Your task to perform on an android device: toggle notification dots Image 0: 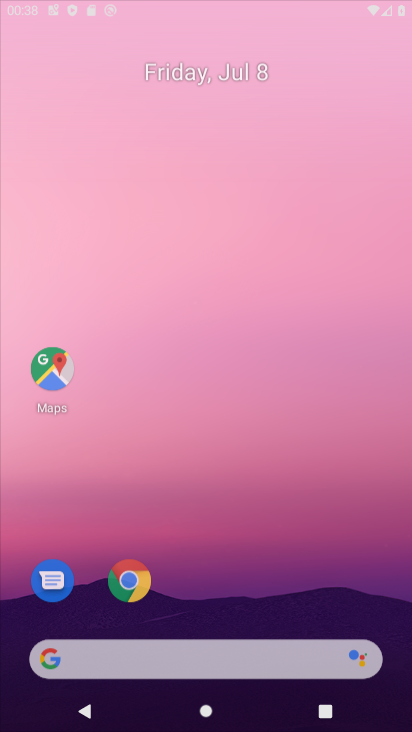
Step 0: click (284, 87)
Your task to perform on an android device: toggle notification dots Image 1: 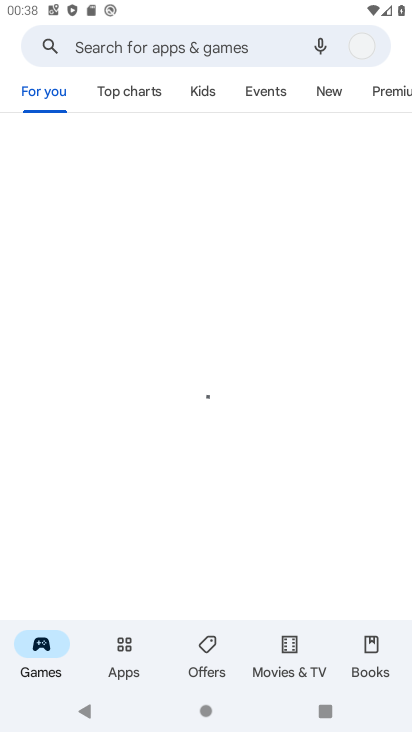
Step 1: press home button
Your task to perform on an android device: toggle notification dots Image 2: 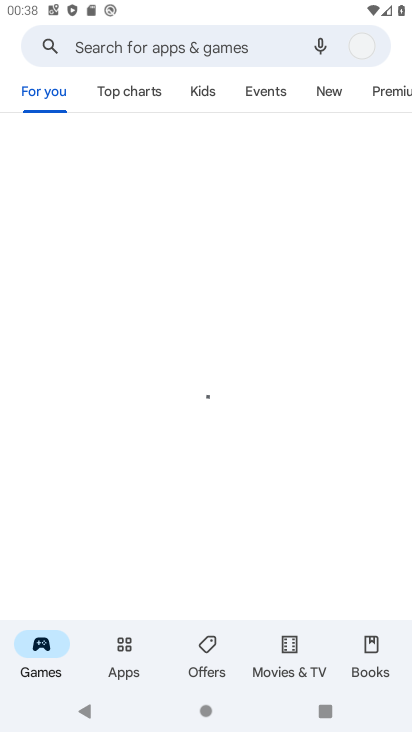
Step 2: press home button
Your task to perform on an android device: toggle notification dots Image 3: 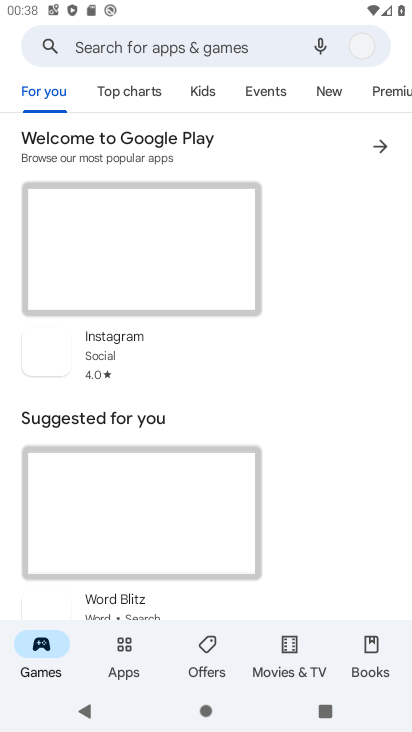
Step 3: click (206, 85)
Your task to perform on an android device: toggle notification dots Image 4: 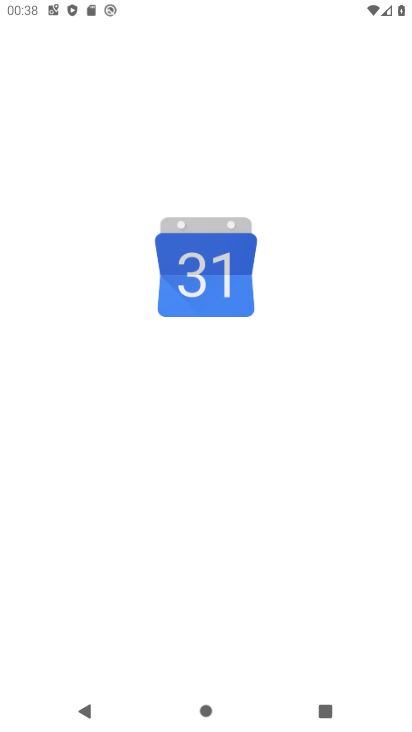
Step 4: drag from (200, 594) to (301, 140)
Your task to perform on an android device: toggle notification dots Image 5: 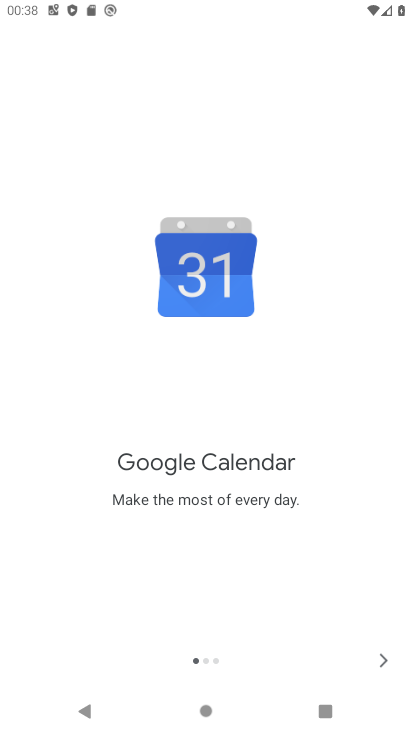
Step 5: press home button
Your task to perform on an android device: toggle notification dots Image 6: 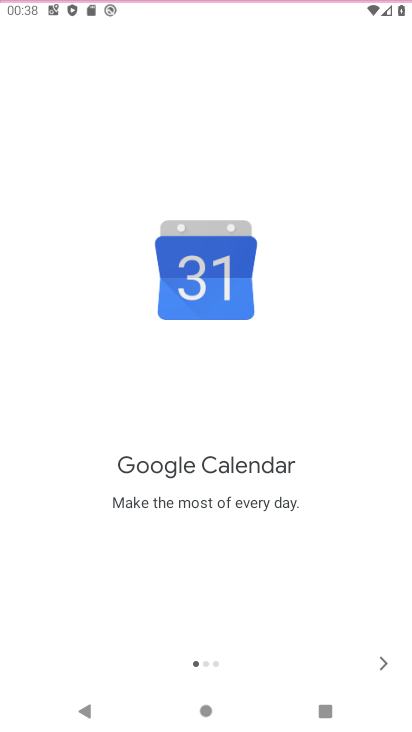
Step 6: press home button
Your task to perform on an android device: toggle notification dots Image 7: 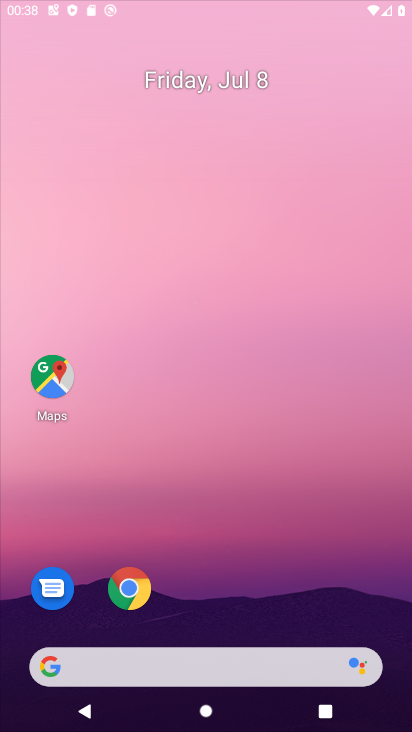
Step 7: drag from (217, 619) to (267, 89)
Your task to perform on an android device: toggle notification dots Image 8: 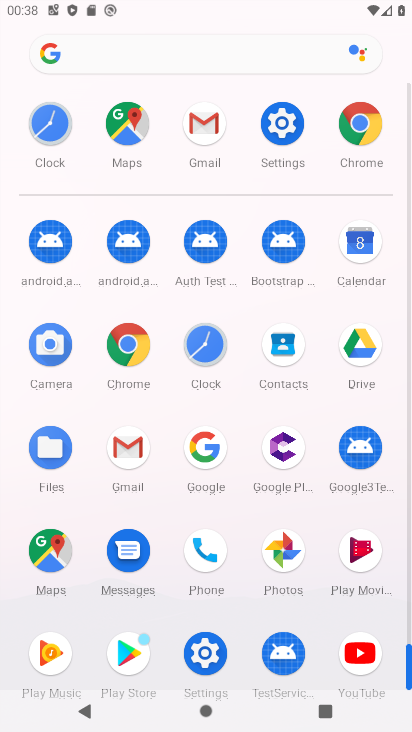
Step 8: click (275, 114)
Your task to perform on an android device: toggle notification dots Image 9: 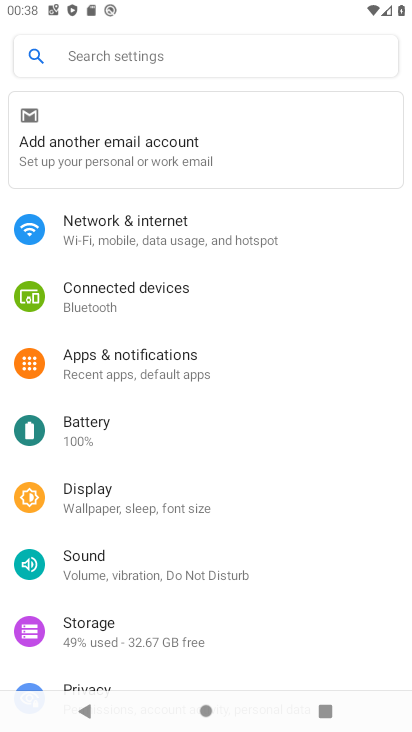
Step 9: click (156, 371)
Your task to perform on an android device: toggle notification dots Image 10: 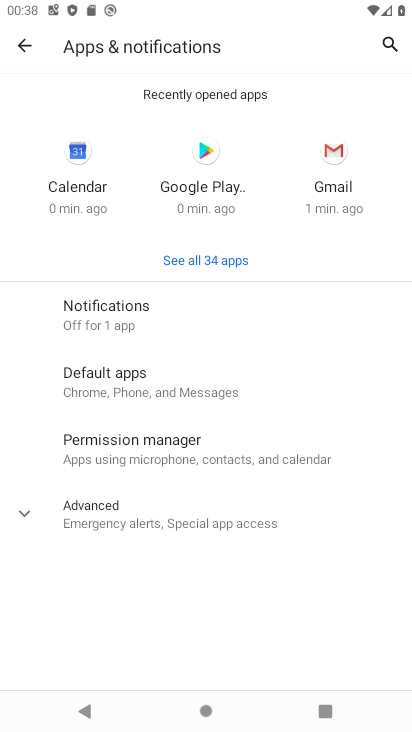
Step 10: click (93, 314)
Your task to perform on an android device: toggle notification dots Image 11: 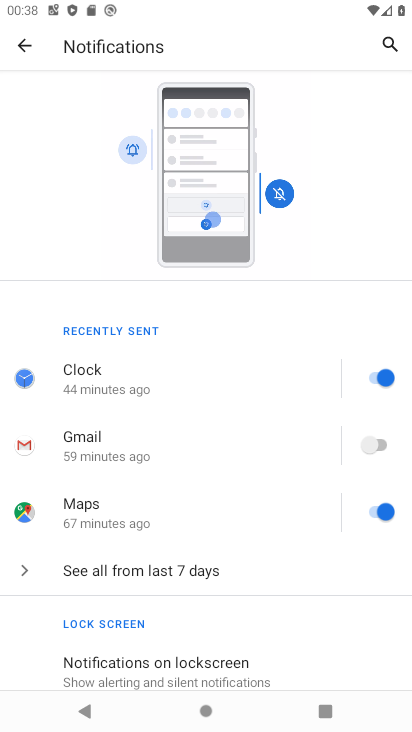
Step 11: drag from (279, 550) to (311, 230)
Your task to perform on an android device: toggle notification dots Image 12: 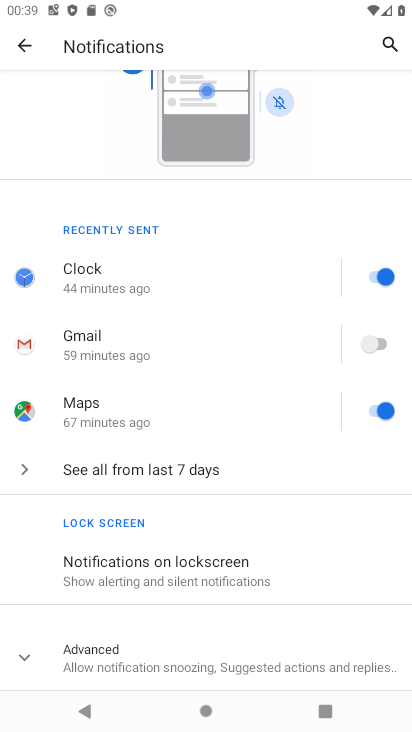
Step 12: drag from (176, 567) to (191, 298)
Your task to perform on an android device: toggle notification dots Image 13: 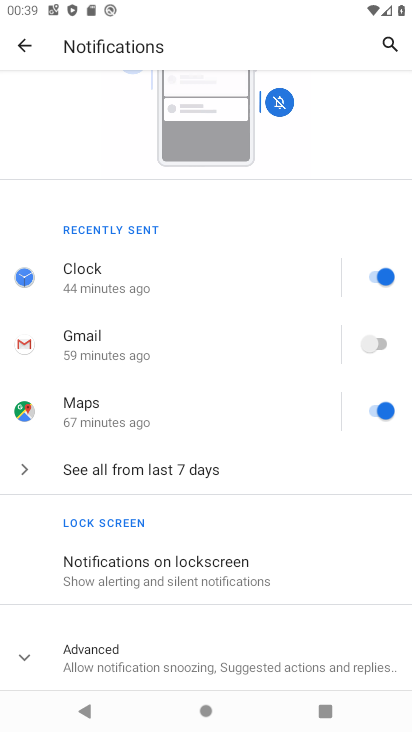
Step 13: click (125, 643)
Your task to perform on an android device: toggle notification dots Image 14: 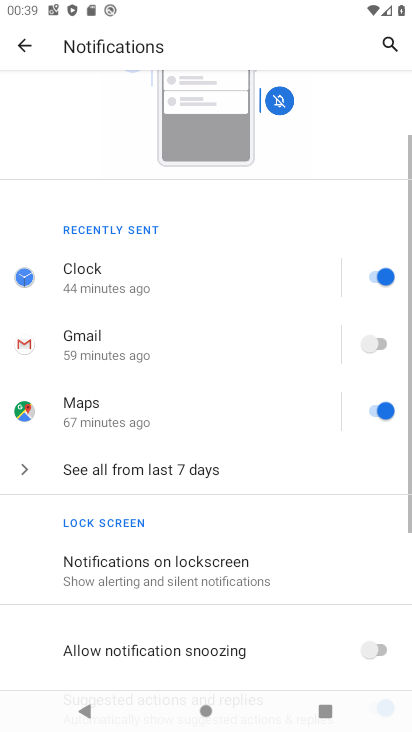
Step 14: drag from (136, 634) to (300, 147)
Your task to perform on an android device: toggle notification dots Image 15: 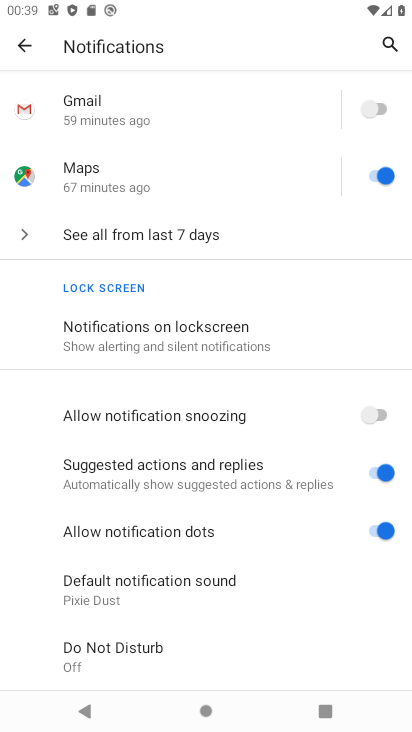
Step 15: click (371, 532)
Your task to perform on an android device: toggle notification dots Image 16: 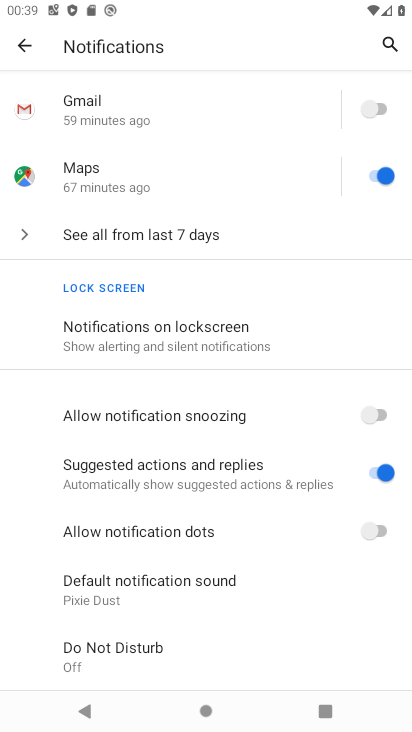
Step 16: task complete